Your task to perform on an android device: turn on data saver in the chrome app Image 0: 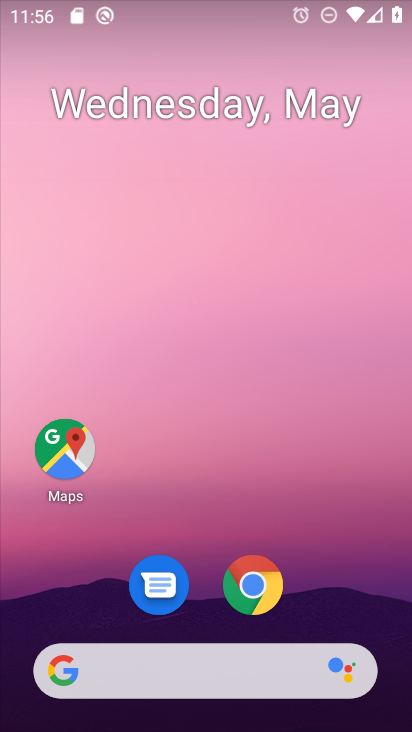
Step 0: click (265, 586)
Your task to perform on an android device: turn on data saver in the chrome app Image 1: 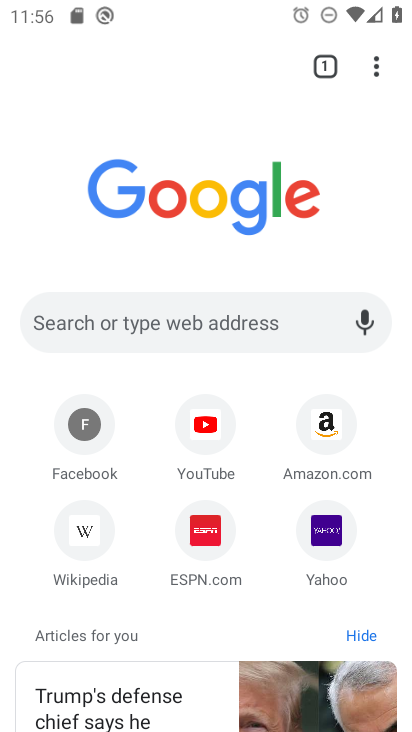
Step 1: click (372, 65)
Your task to perform on an android device: turn on data saver in the chrome app Image 2: 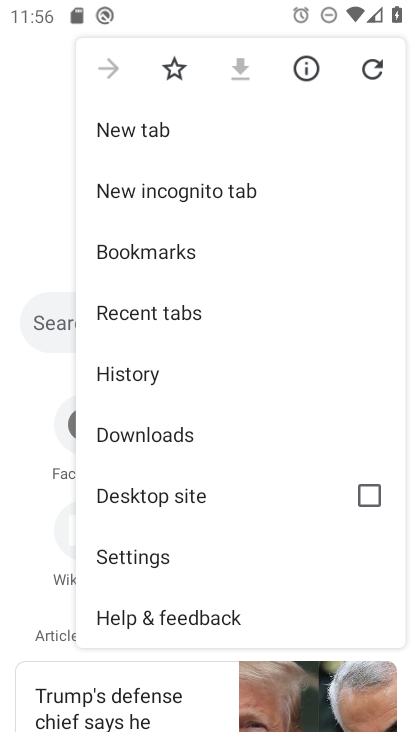
Step 2: drag from (239, 547) to (242, 511)
Your task to perform on an android device: turn on data saver in the chrome app Image 3: 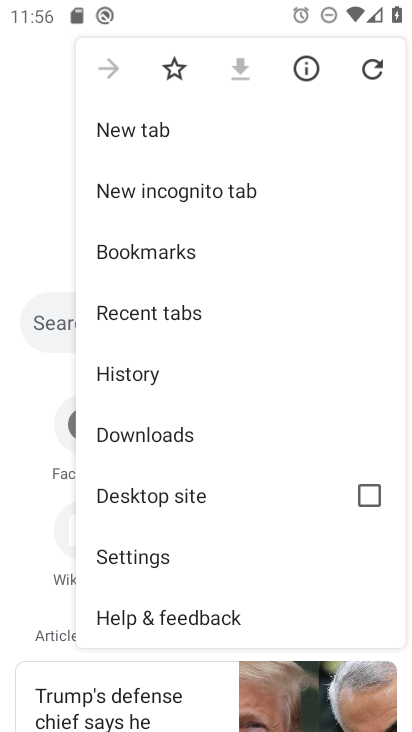
Step 3: click (230, 555)
Your task to perform on an android device: turn on data saver in the chrome app Image 4: 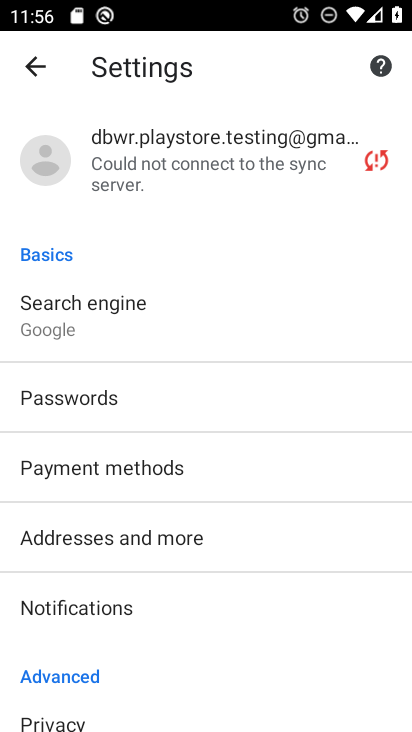
Step 4: drag from (250, 613) to (253, 124)
Your task to perform on an android device: turn on data saver in the chrome app Image 5: 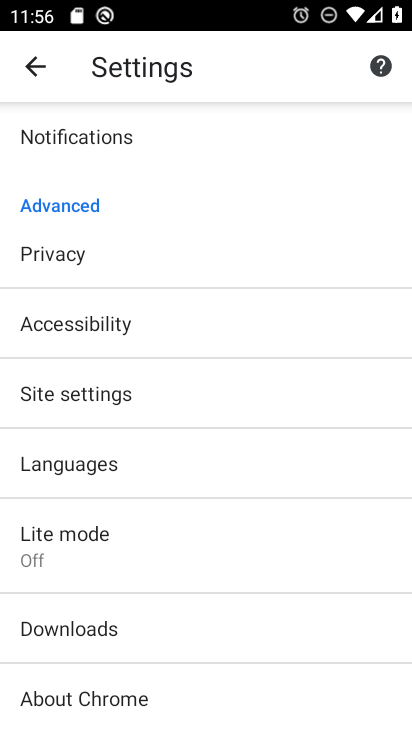
Step 5: click (126, 552)
Your task to perform on an android device: turn on data saver in the chrome app Image 6: 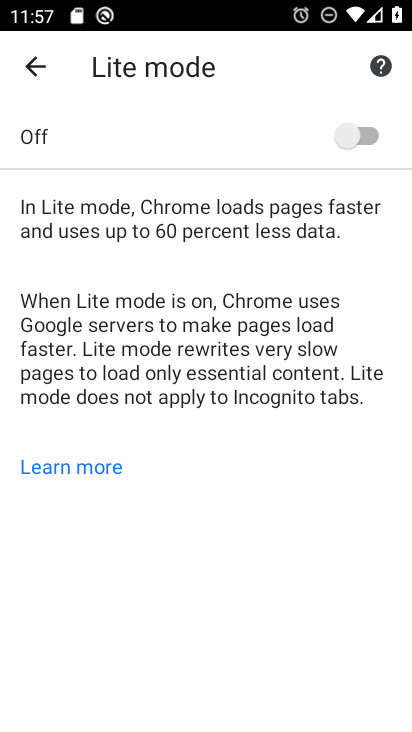
Step 6: click (367, 122)
Your task to perform on an android device: turn on data saver in the chrome app Image 7: 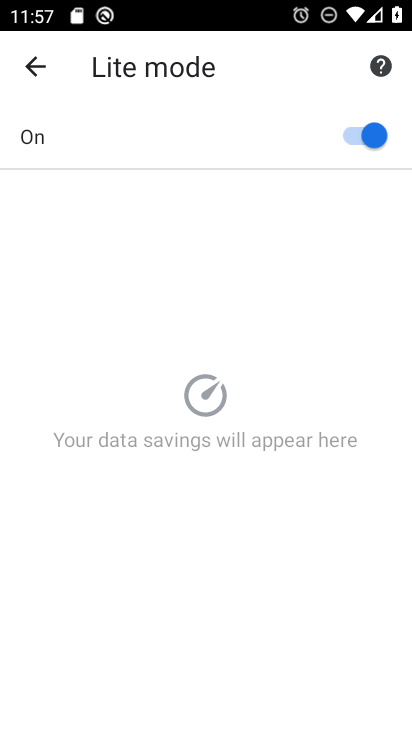
Step 7: task complete